Your task to perform on an android device: turn pop-ups off in chrome Image 0: 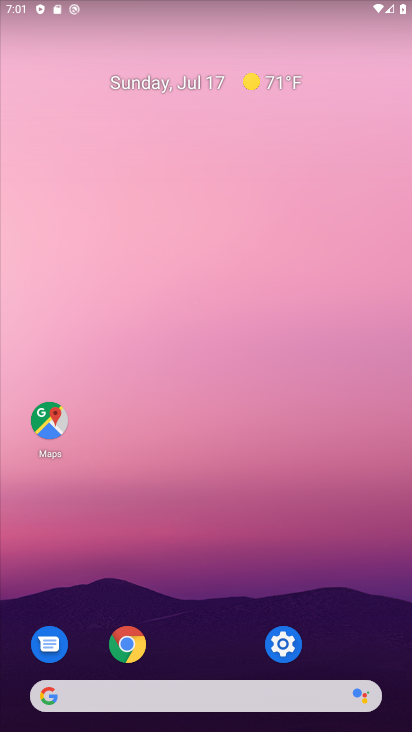
Step 0: drag from (255, 699) to (301, 119)
Your task to perform on an android device: turn pop-ups off in chrome Image 1: 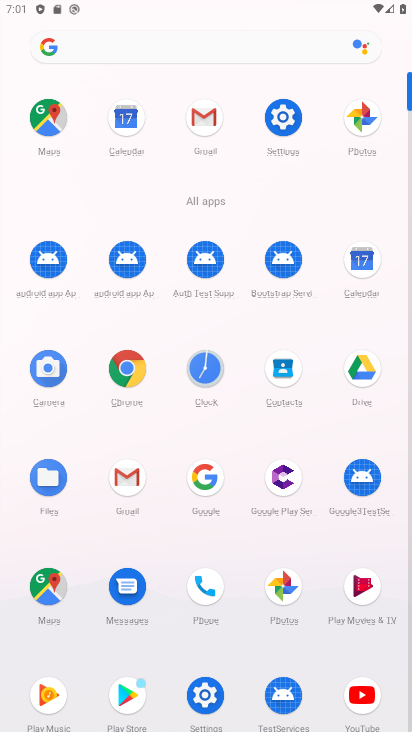
Step 1: click (149, 350)
Your task to perform on an android device: turn pop-ups off in chrome Image 2: 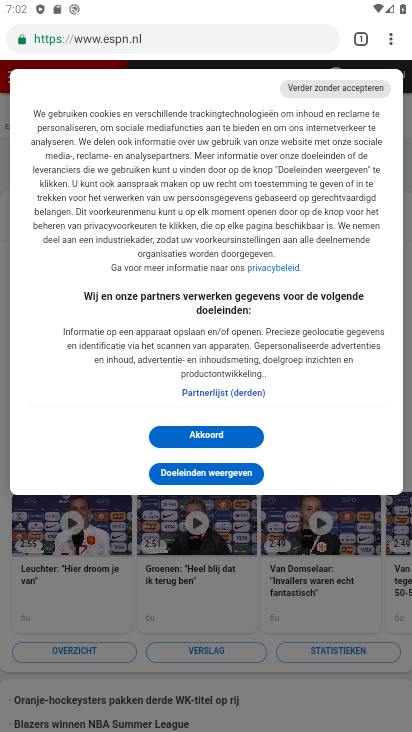
Step 2: click (383, 33)
Your task to perform on an android device: turn pop-ups off in chrome Image 3: 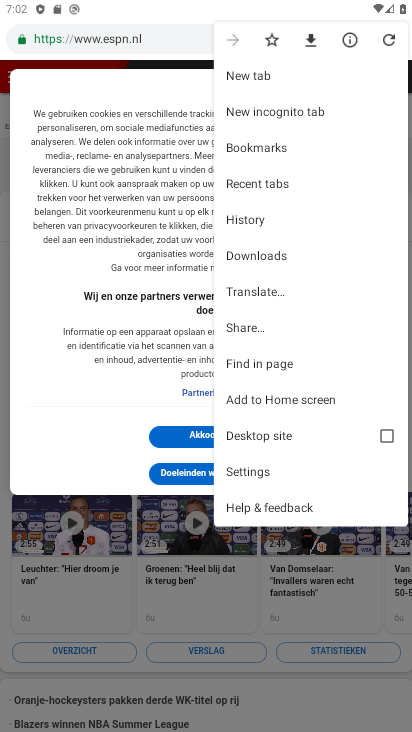
Step 3: click (261, 464)
Your task to perform on an android device: turn pop-ups off in chrome Image 4: 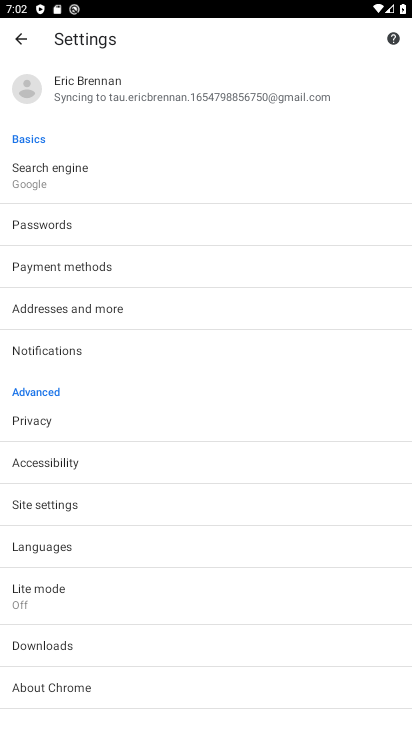
Step 4: click (61, 498)
Your task to perform on an android device: turn pop-ups off in chrome Image 5: 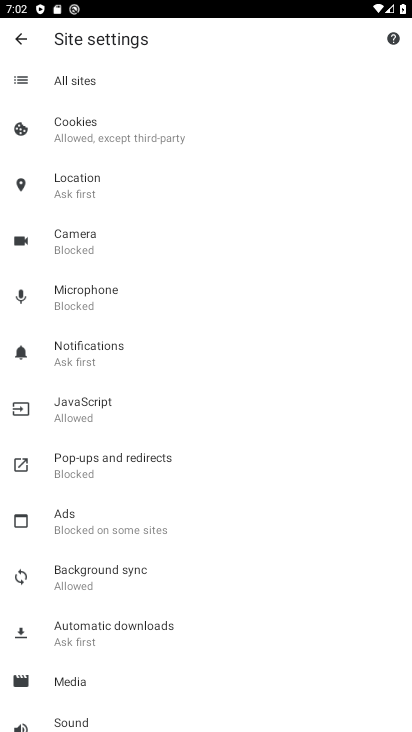
Step 5: click (102, 473)
Your task to perform on an android device: turn pop-ups off in chrome Image 6: 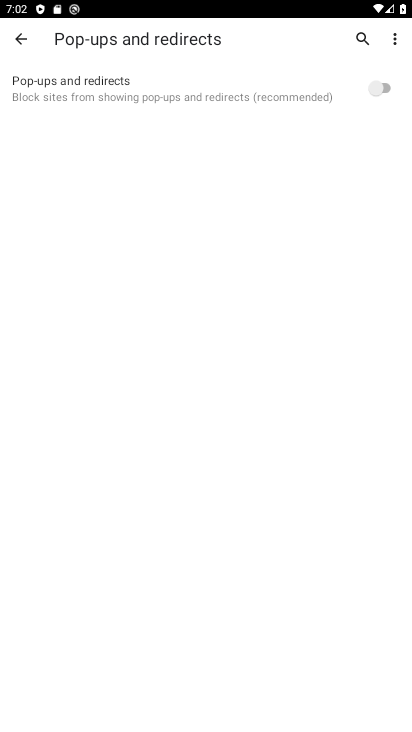
Step 6: click (373, 87)
Your task to perform on an android device: turn pop-ups off in chrome Image 7: 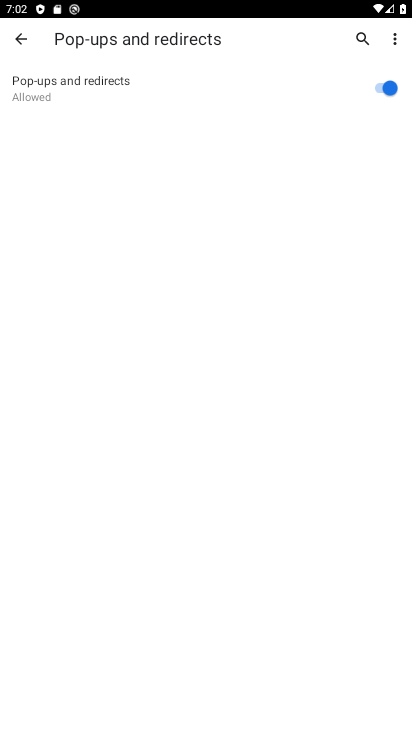
Step 7: click (373, 87)
Your task to perform on an android device: turn pop-ups off in chrome Image 8: 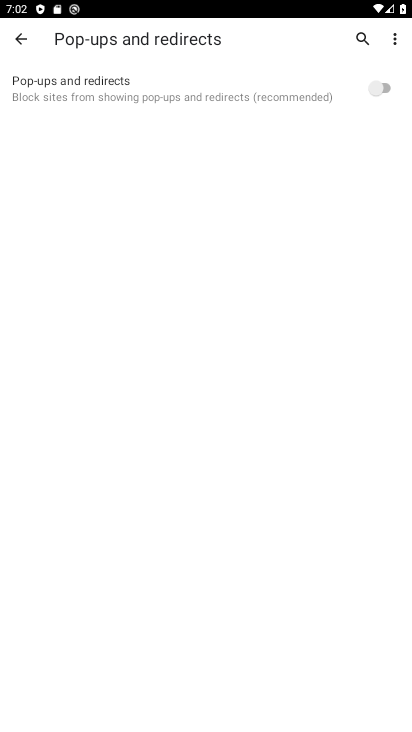
Step 8: task complete